Your task to perform on an android device: Open location settings Image 0: 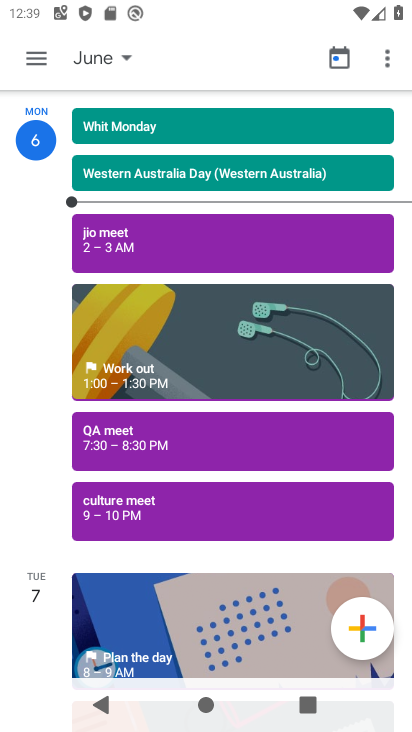
Step 0: press home button
Your task to perform on an android device: Open location settings Image 1: 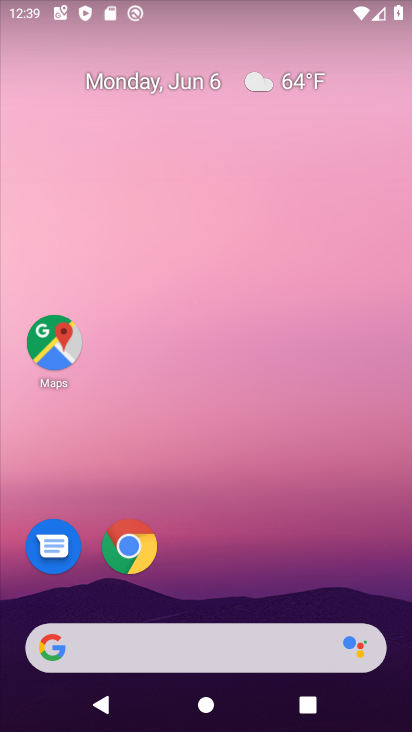
Step 1: drag from (196, 622) to (240, 312)
Your task to perform on an android device: Open location settings Image 2: 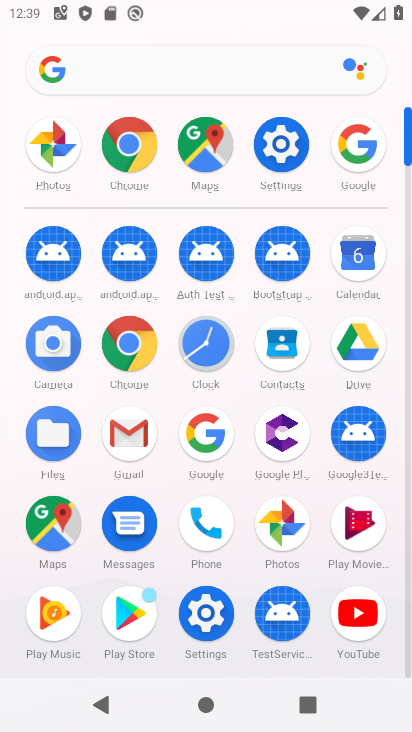
Step 2: click (279, 135)
Your task to perform on an android device: Open location settings Image 3: 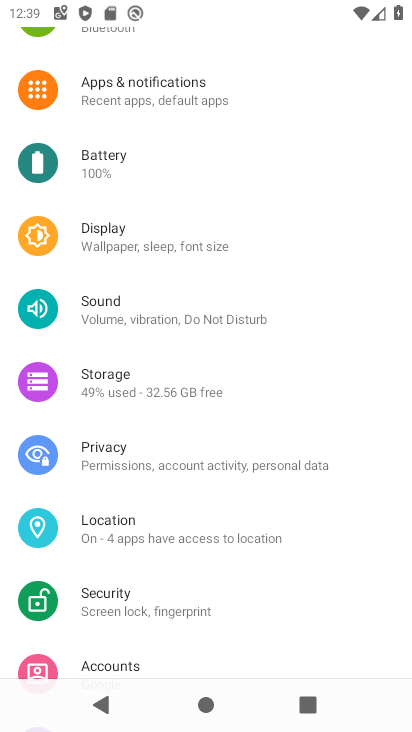
Step 3: click (134, 529)
Your task to perform on an android device: Open location settings Image 4: 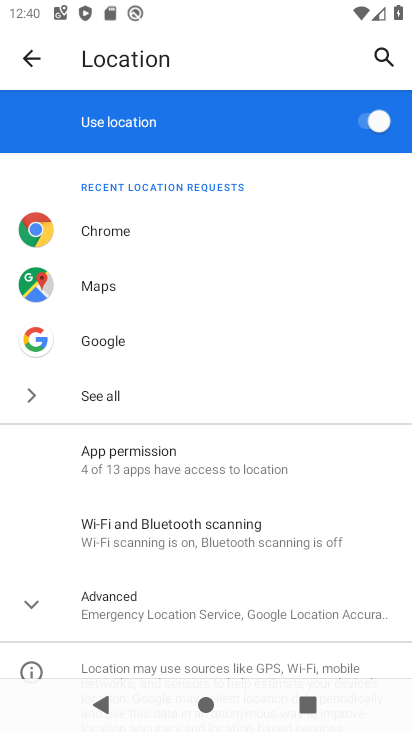
Step 4: task complete